Your task to perform on an android device: Open Youtube and go to the subscriptions tab Image 0: 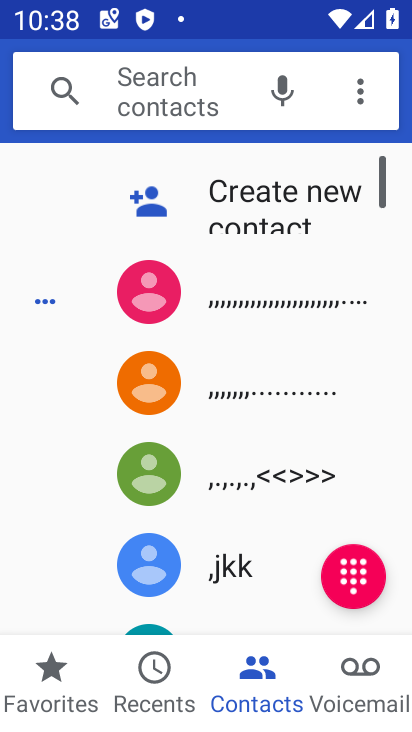
Step 0: press home button
Your task to perform on an android device: Open Youtube and go to the subscriptions tab Image 1: 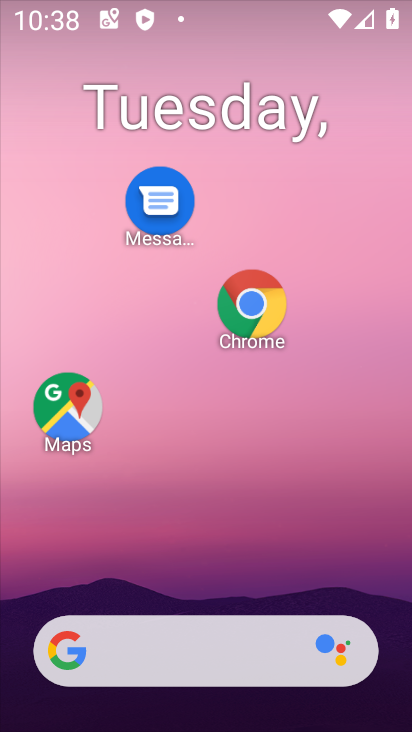
Step 1: click (250, 267)
Your task to perform on an android device: Open Youtube and go to the subscriptions tab Image 2: 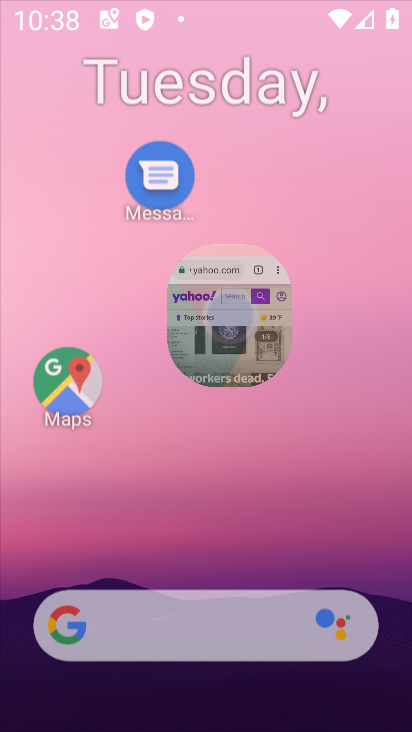
Step 2: drag from (210, 589) to (204, 243)
Your task to perform on an android device: Open Youtube and go to the subscriptions tab Image 3: 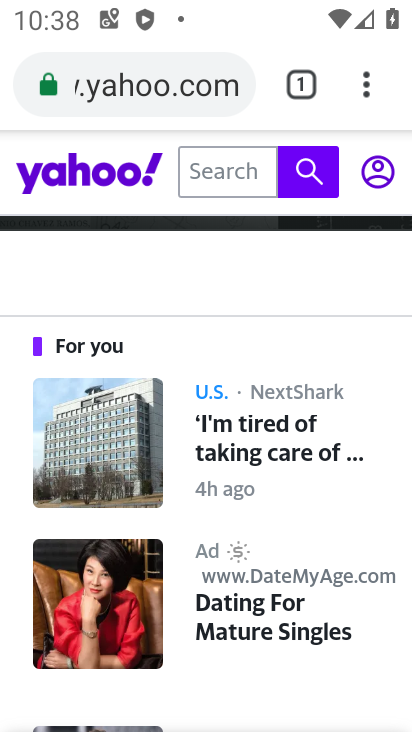
Step 3: press home button
Your task to perform on an android device: Open Youtube and go to the subscriptions tab Image 4: 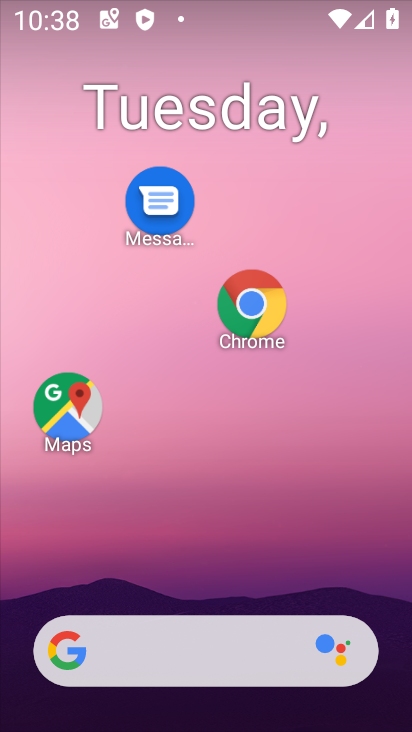
Step 4: drag from (308, 556) to (356, 116)
Your task to perform on an android device: Open Youtube and go to the subscriptions tab Image 5: 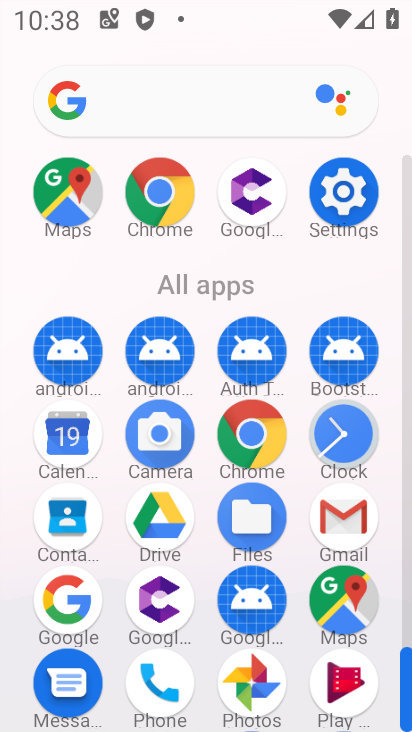
Step 5: drag from (299, 663) to (319, 249)
Your task to perform on an android device: Open Youtube and go to the subscriptions tab Image 6: 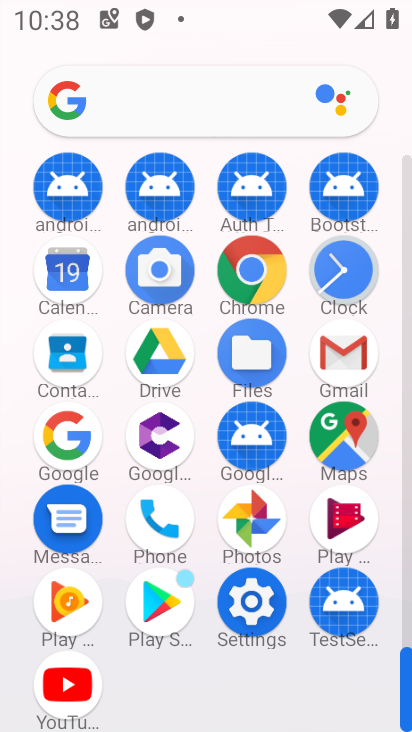
Step 6: click (69, 678)
Your task to perform on an android device: Open Youtube and go to the subscriptions tab Image 7: 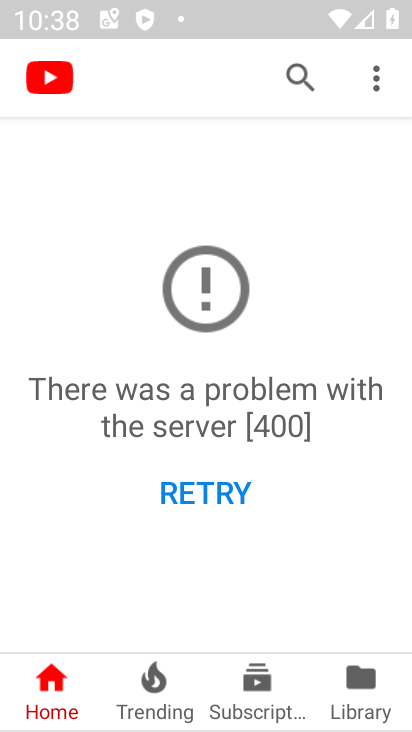
Step 7: click (378, 84)
Your task to perform on an android device: Open Youtube and go to the subscriptions tab Image 8: 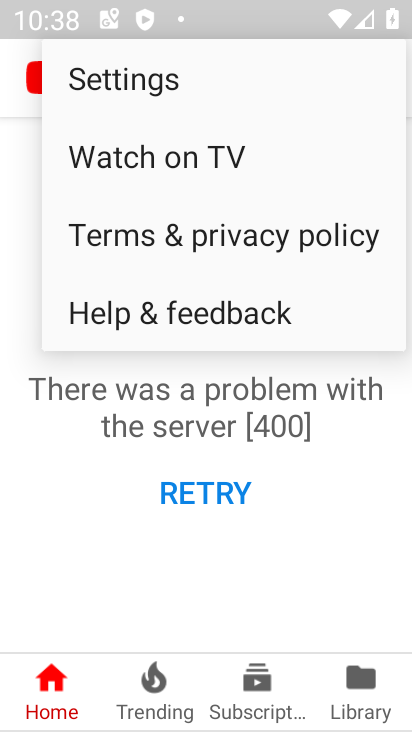
Step 8: click (198, 79)
Your task to perform on an android device: Open Youtube and go to the subscriptions tab Image 9: 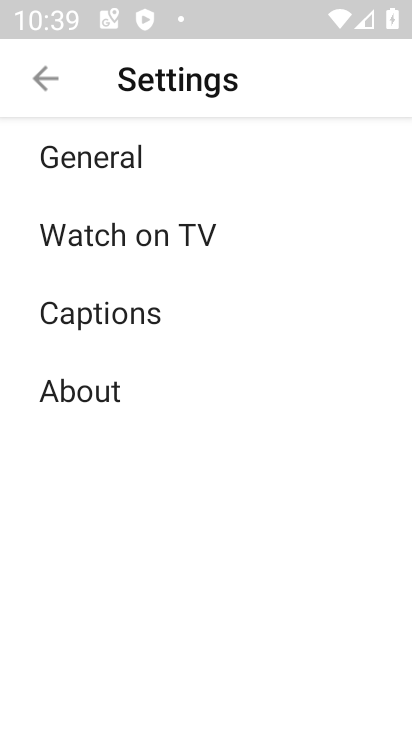
Step 9: click (86, 149)
Your task to perform on an android device: Open Youtube and go to the subscriptions tab Image 10: 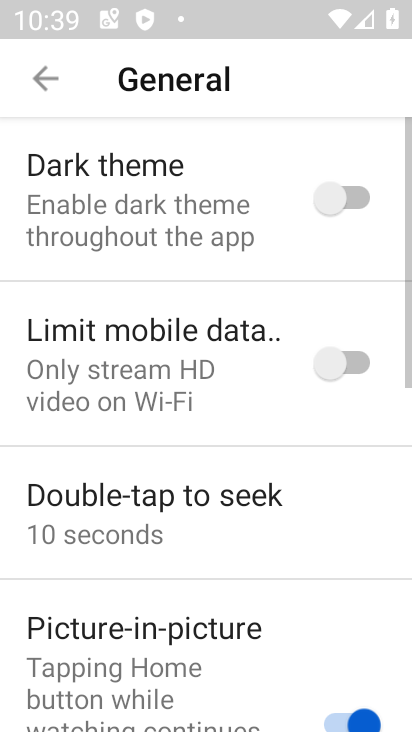
Step 10: drag from (159, 434) to (186, 192)
Your task to perform on an android device: Open Youtube and go to the subscriptions tab Image 11: 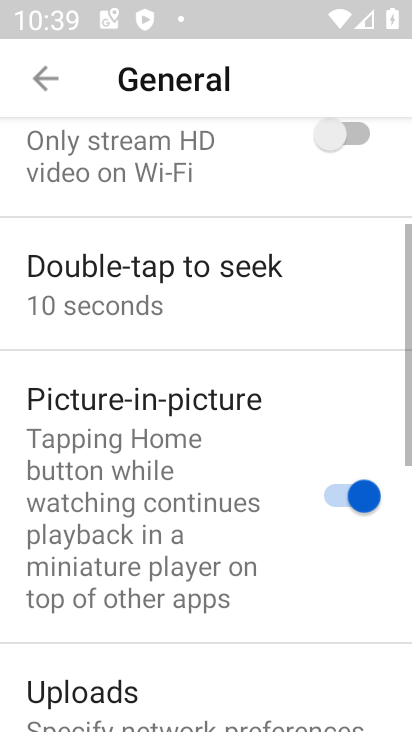
Step 11: click (64, 81)
Your task to perform on an android device: Open Youtube and go to the subscriptions tab Image 12: 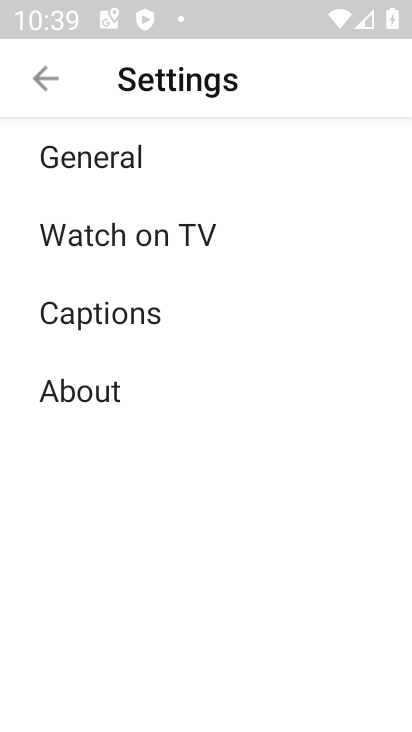
Step 12: click (63, 81)
Your task to perform on an android device: Open Youtube and go to the subscriptions tab Image 13: 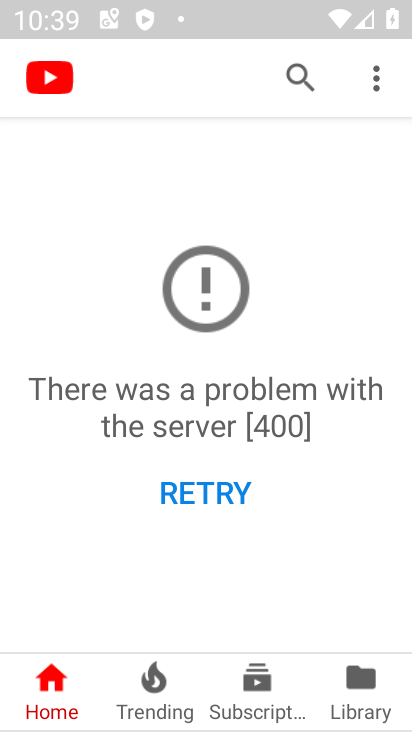
Step 13: click (245, 691)
Your task to perform on an android device: Open Youtube and go to the subscriptions tab Image 14: 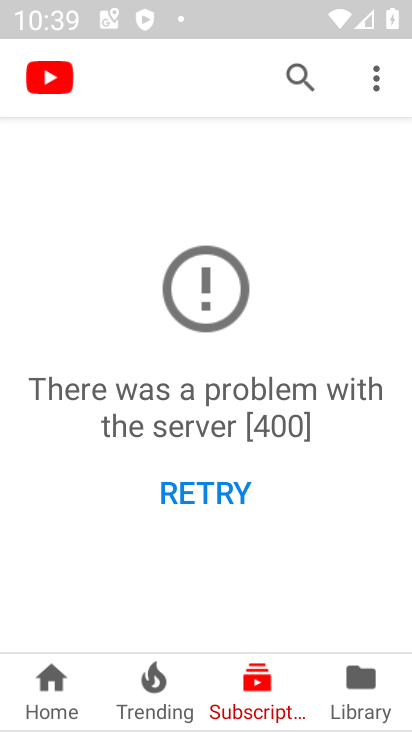
Step 14: task complete